Your task to perform on an android device: turn off improve location accuracy Image 0: 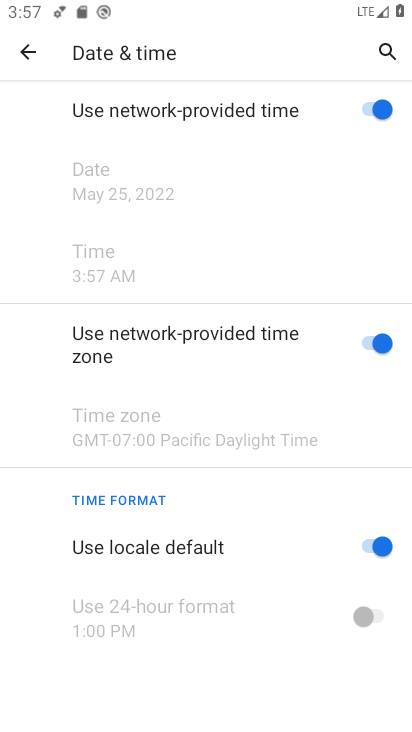
Step 0: press home button
Your task to perform on an android device: turn off improve location accuracy Image 1: 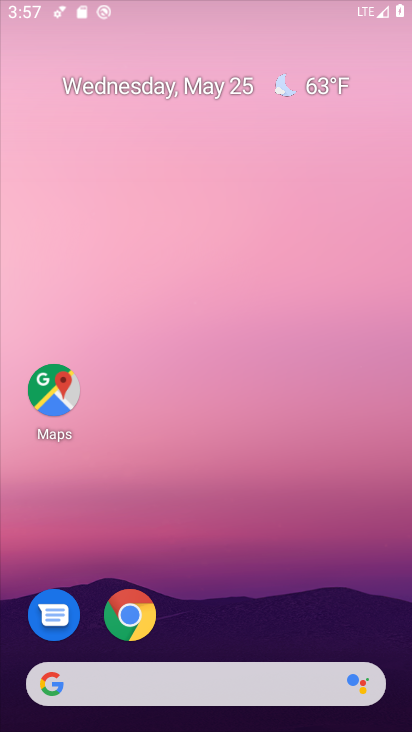
Step 1: drag from (263, 567) to (193, 32)
Your task to perform on an android device: turn off improve location accuracy Image 2: 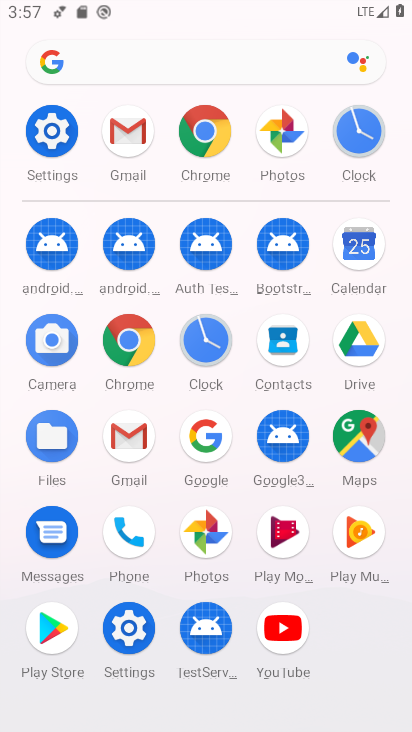
Step 2: click (38, 131)
Your task to perform on an android device: turn off improve location accuracy Image 3: 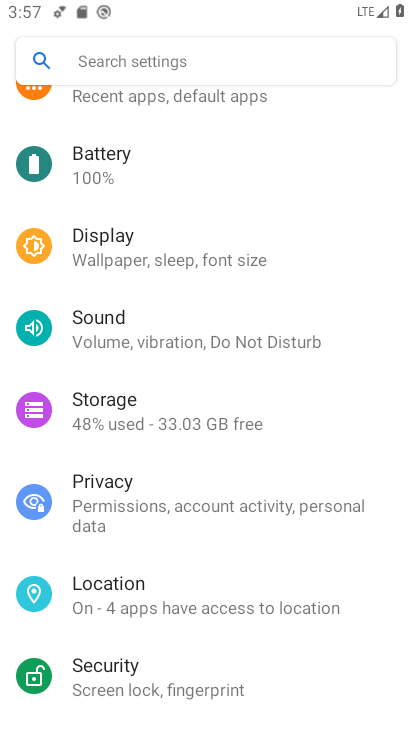
Step 3: click (195, 589)
Your task to perform on an android device: turn off improve location accuracy Image 4: 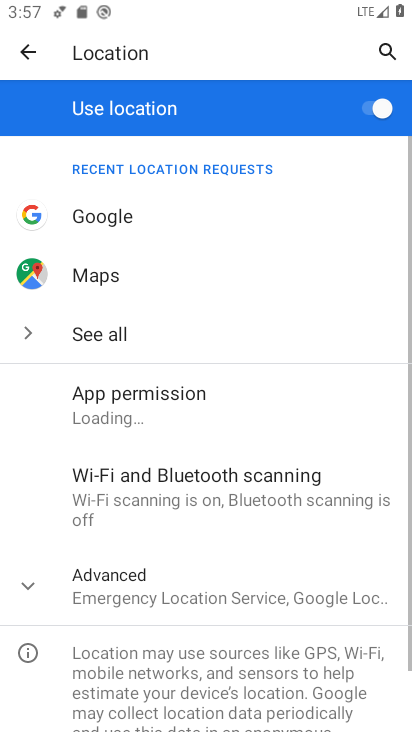
Step 4: click (234, 595)
Your task to perform on an android device: turn off improve location accuracy Image 5: 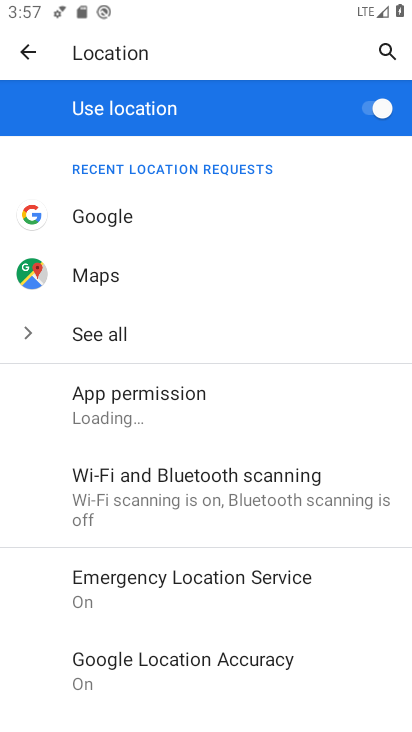
Step 5: click (249, 657)
Your task to perform on an android device: turn off improve location accuracy Image 6: 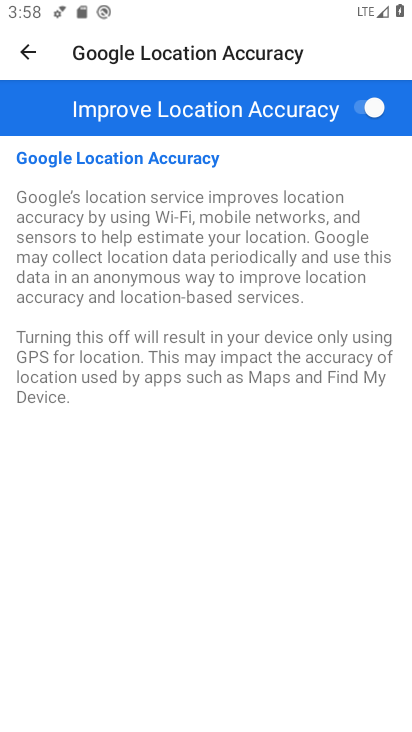
Step 6: click (367, 109)
Your task to perform on an android device: turn off improve location accuracy Image 7: 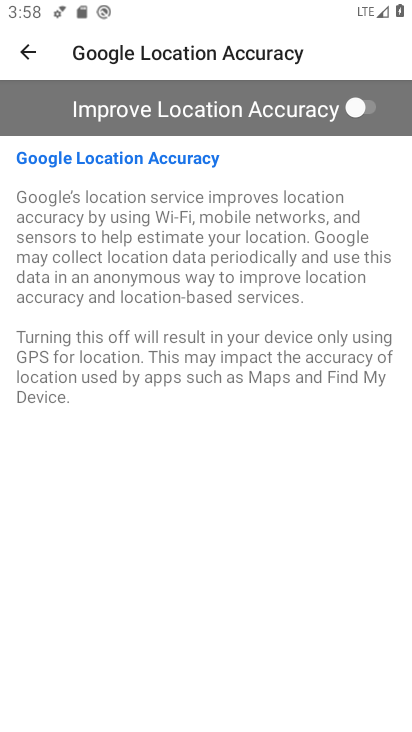
Step 7: task complete